Your task to perform on an android device: Open privacy settings Image 0: 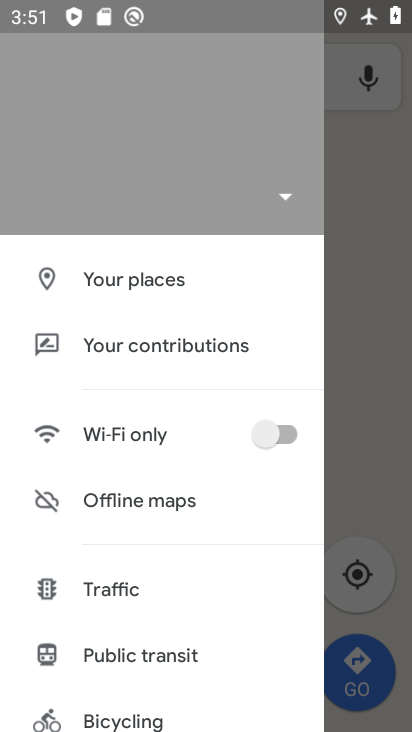
Step 0: press home button
Your task to perform on an android device: Open privacy settings Image 1: 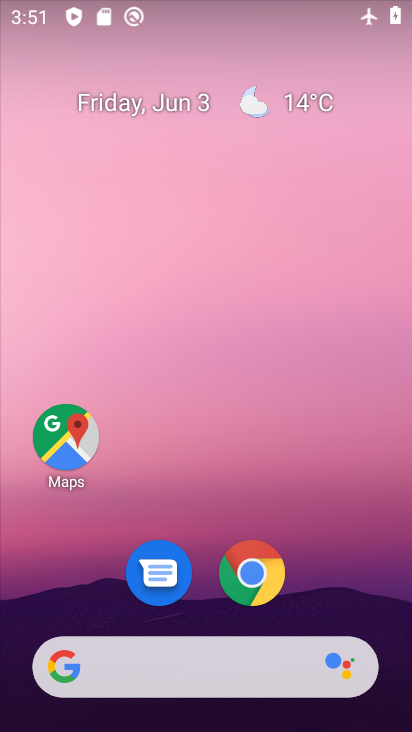
Step 1: drag from (250, 491) to (343, 229)
Your task to perform on an android device: Open privacy settings Image 2: 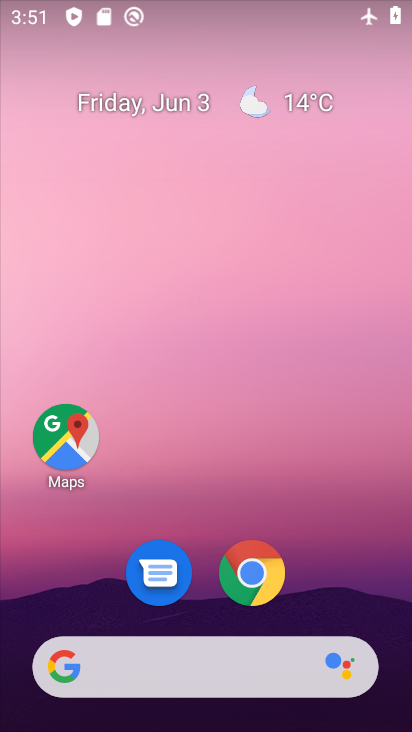
Step 2: drag from (189, 607) to (276, 64)
Your task to perform on an android device: Open privacy settings Image 3: 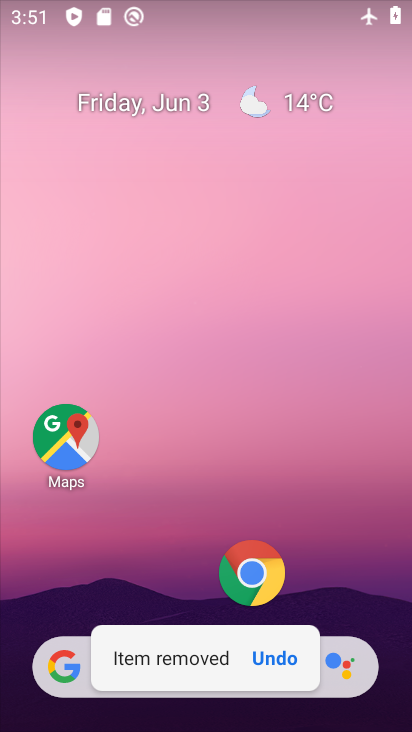
Step 3: drag from (185, 516) to (200, 159)
Your task to perform on an android device: Open privacy settings Image 4: 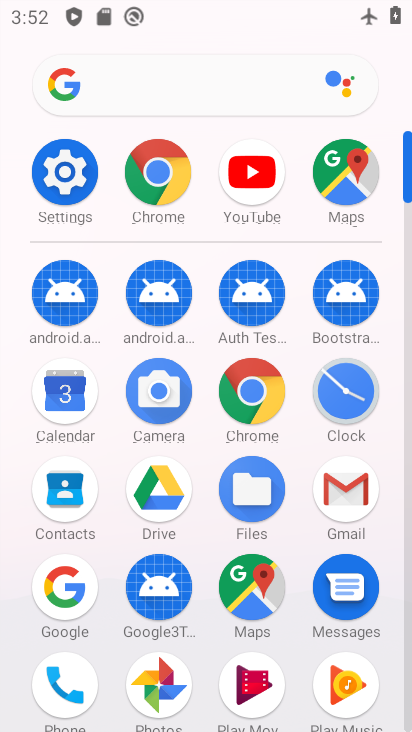
Step 4: click (89, 178)
Your task to perform on an android device: Open privacy settings Image 5: 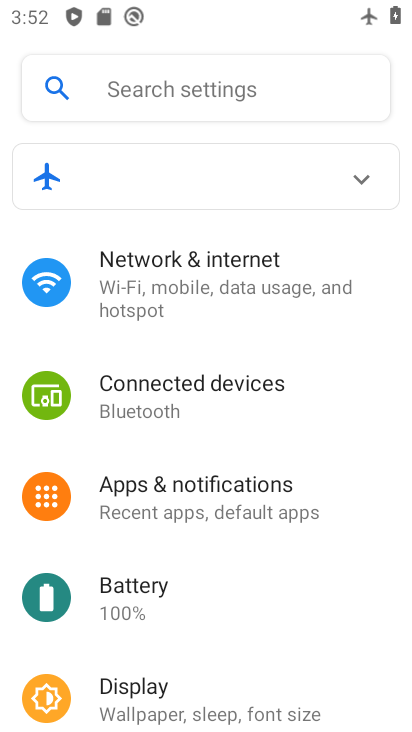
Step 5: drag from (155, 541) to (186, 330)
Your task to perform on an android device: Open privacy settings Image 6: 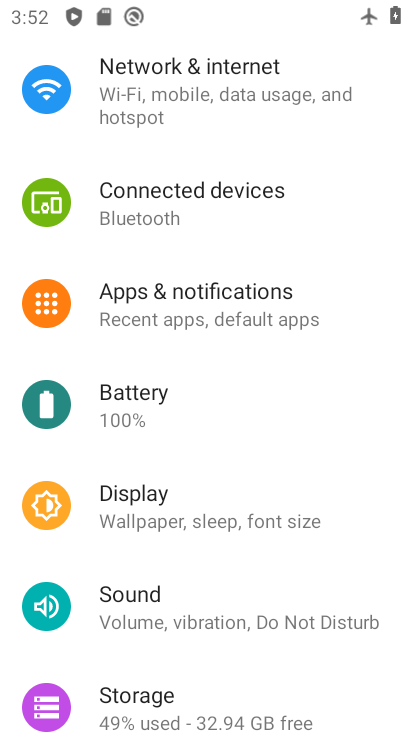
Step 6: drag from (156, 522) to (156, 222)
Your task to perform on an android device: Open privacy settings Image 7: 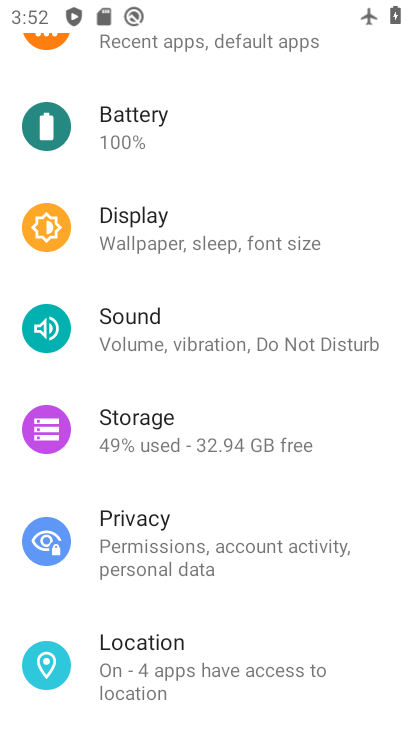
Step 7: click (220, 552)
Your task to perform on an android device: Open privacy settings Image 8: 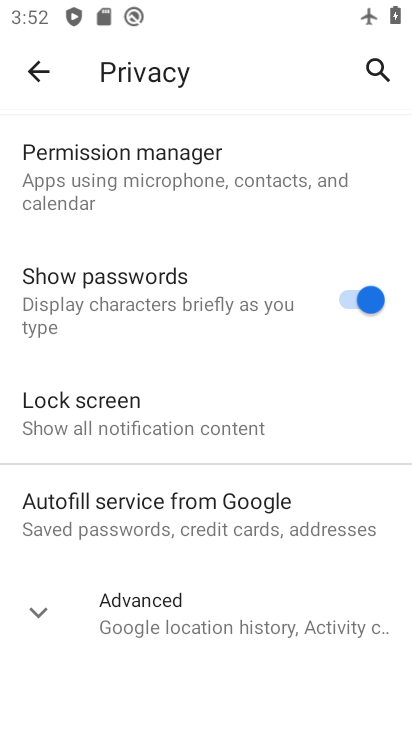
Step 8: task complete